Your task to perform on an android device: clear all cookies in the chrome app Image 0: 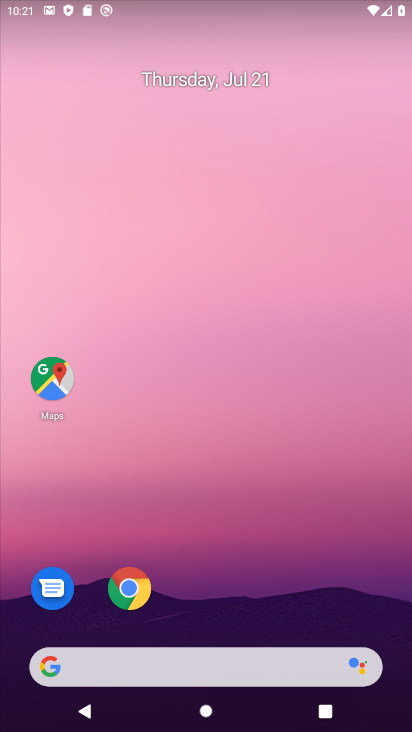
Step 0: drag from (161, 587) to (298, 193)
Your task to perform on an android device: clear all cookies in the chrome app Image 1: 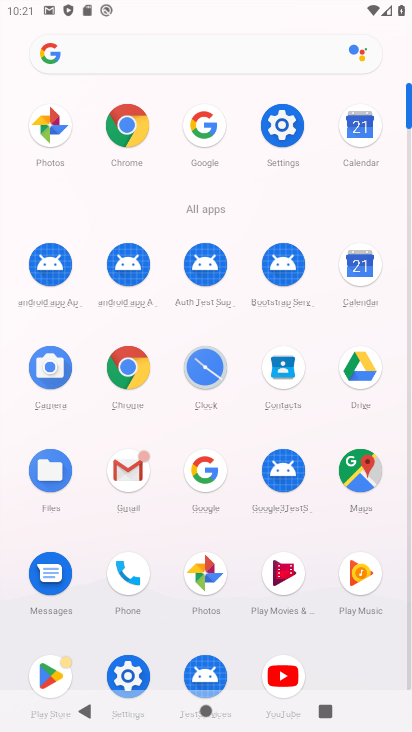
Step 1: click (135, 368)
Your task to perform on an android device: clear all cookies in the chrome app Image 2: 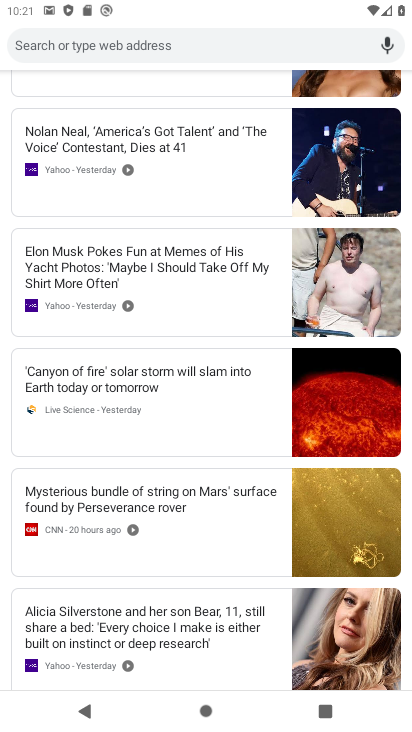
Step 2: drag from (243, 149) to (298, 636)
Your task to perform on an android device: clear all cookies in the chrome app Image 3: 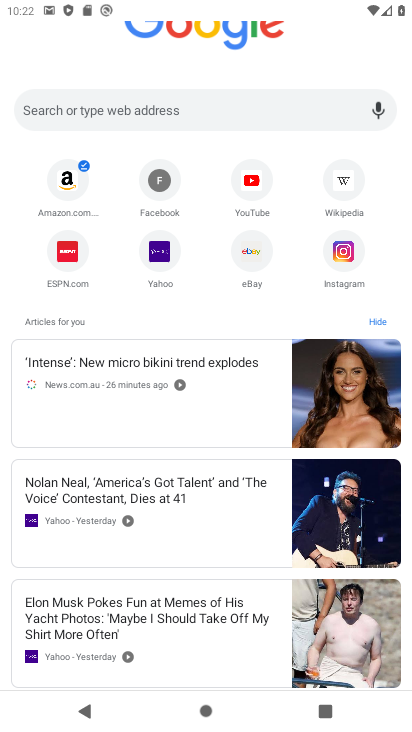
Step 3: drag from (250, 81) to (202, 505)
Your task to perform on an android device: clear all cookies in the chrome app Image 4: 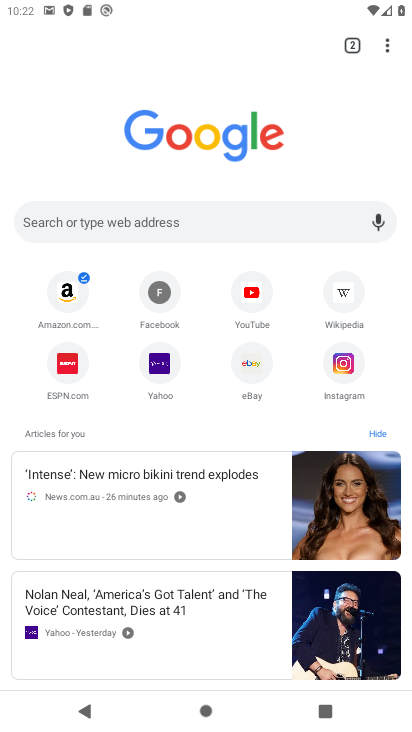
Step 4: drag from (385, 42) to (238, 258)
Your task to perform on an android device: clear all cookies in the chrome app Image 5: 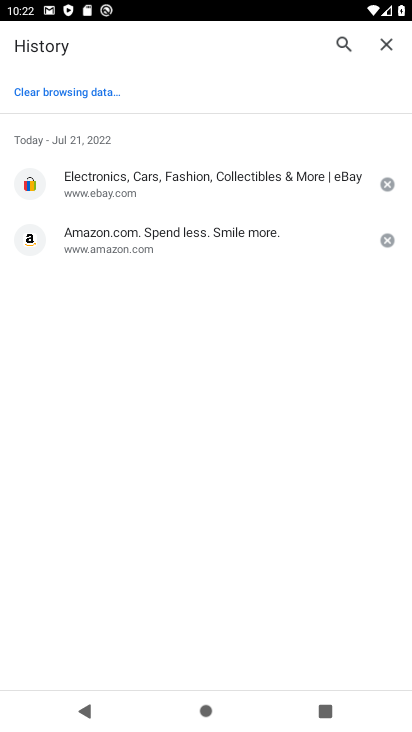
Step 5: click (34, 99)
Your task to perform on an android device: clear all cookies in the chrome app Image 6: 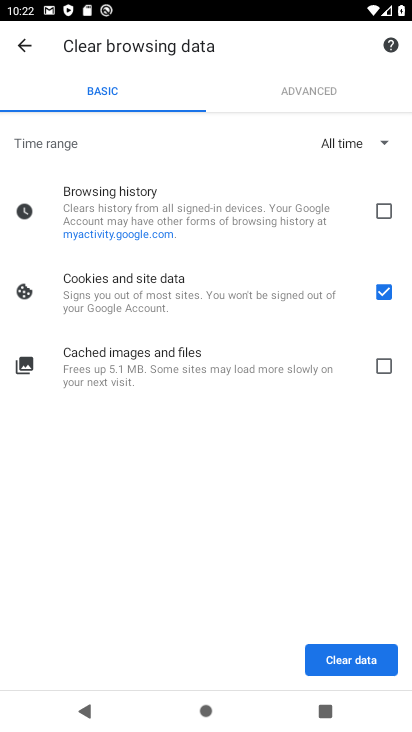
Step 6: click (358, 663)
Your task to perform on an android device: clear all cookies in the chrome app Image 7: 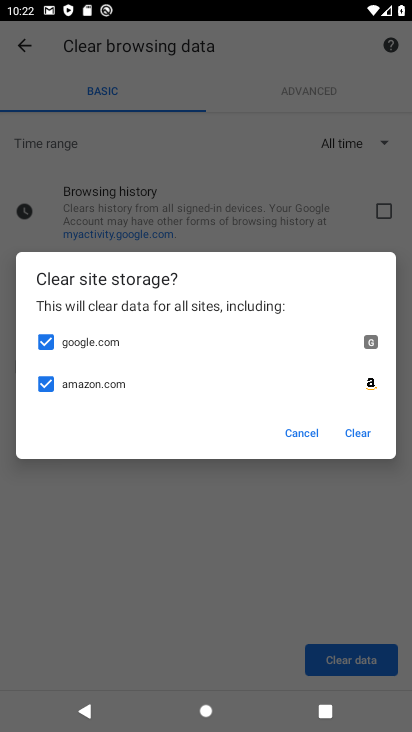
Step 7: click (353, 433)
Your task to perform on an android device: clear all cookies in the chrome app Image 8: 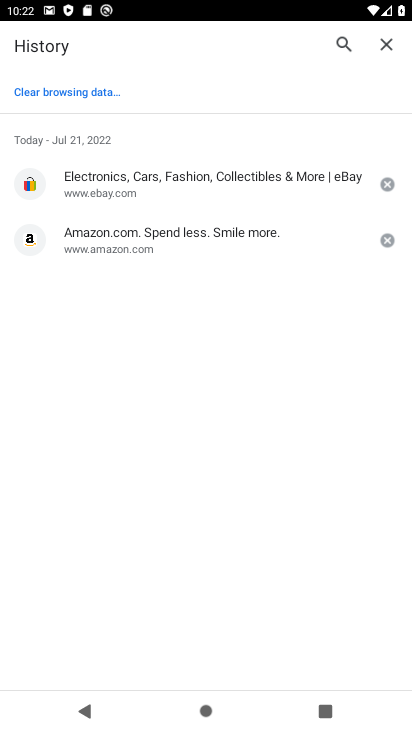
Step 8: task complete